Your task to perform on an android device: check battery use Image 0: 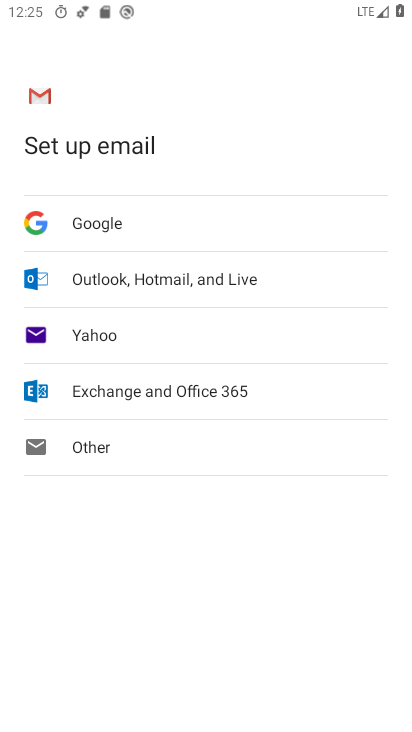
Step 0: click (134, 620)
Your task to perform on an android device: check battery use Image 1: 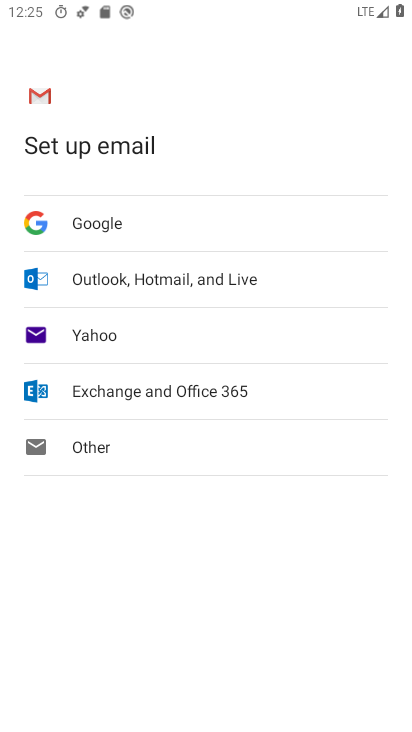
Step 1: press back button
Your task to perform on an android device: check battery use Image 2: 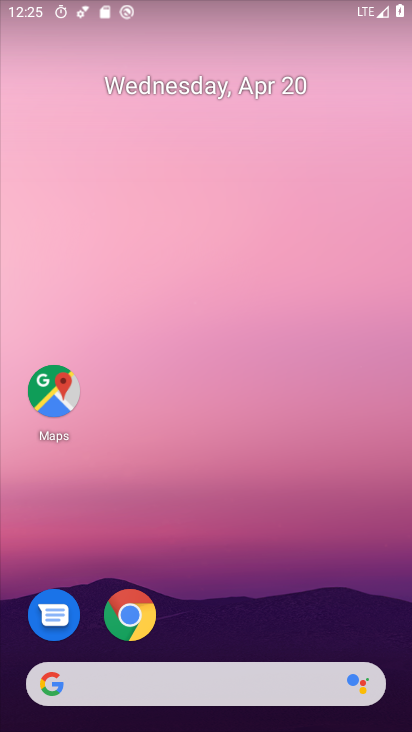
Step 2: drag from (229, 644) to (342, 111)
Your task to perform on an android device: check battery use Image 3: 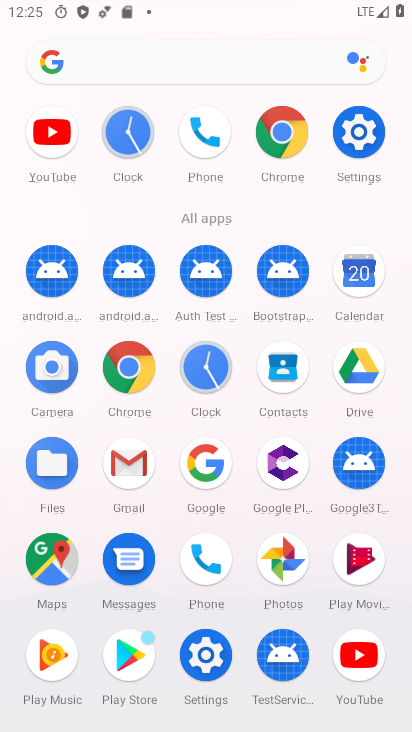
Step 3: drag from (206, 574) to (261, 324)
Your task to perform on an android device: check battery use Image 4: 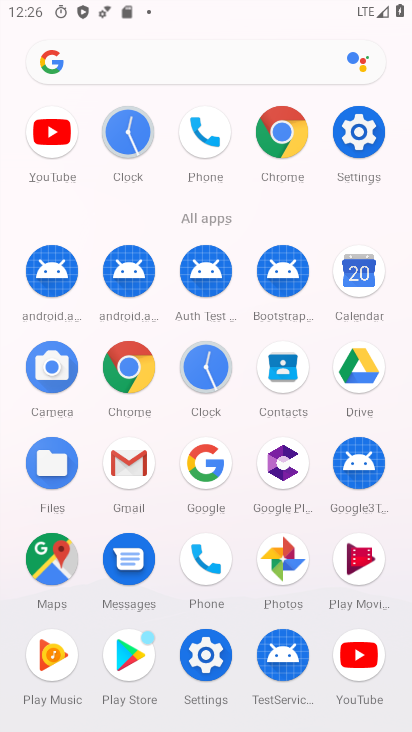
Step 4: click (200, 657)
Your task to perform on an android device: check battery use Image 5: 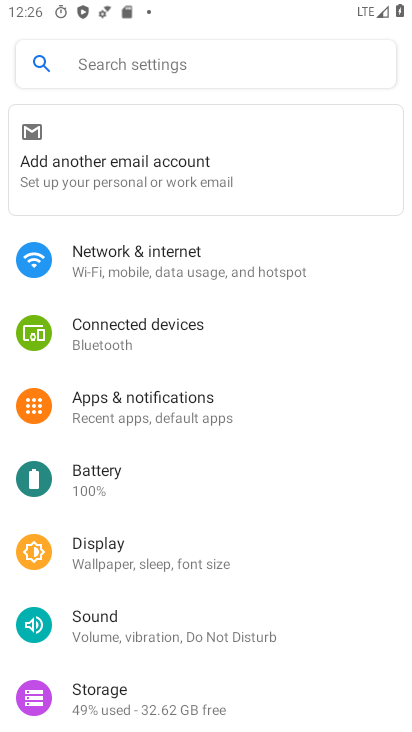
Step 5: click (167, 473)
Your task to perform on an android device: check battery use Image 6: 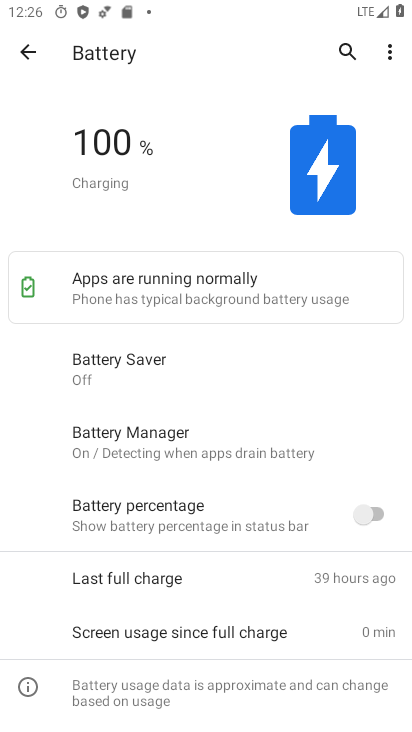
Step 6: click (383, 55)
Your task to perform on an android device: check battery use Image 7: 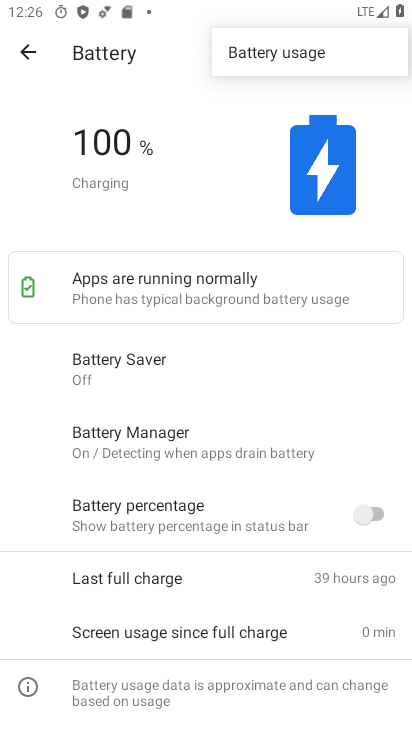
Step 7: click (376, 61)
Your task to perform on an android device: check battery use Image 8: 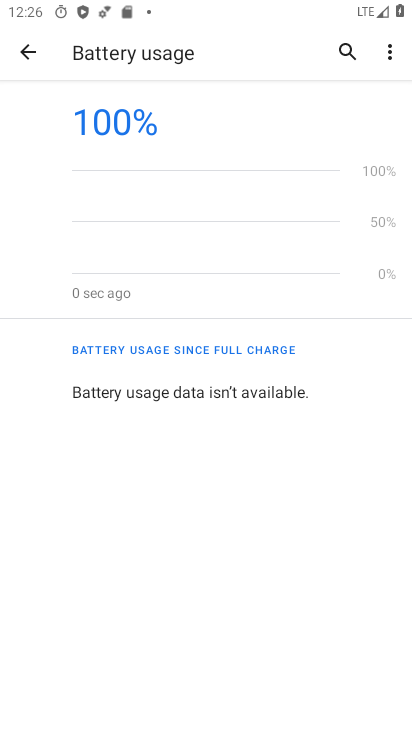
Step 8: task complete